Your task to perform on an android device: empty trash in the gmail app Image 0: 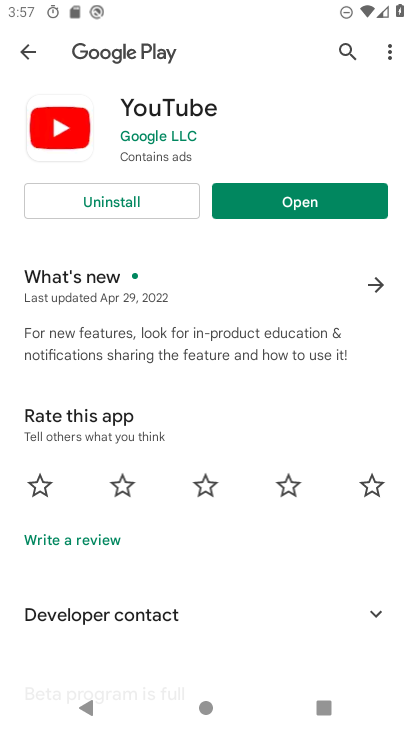
Step 0: press home button
Your task to perform on an android device: empty trash in the gmail app Image 1: 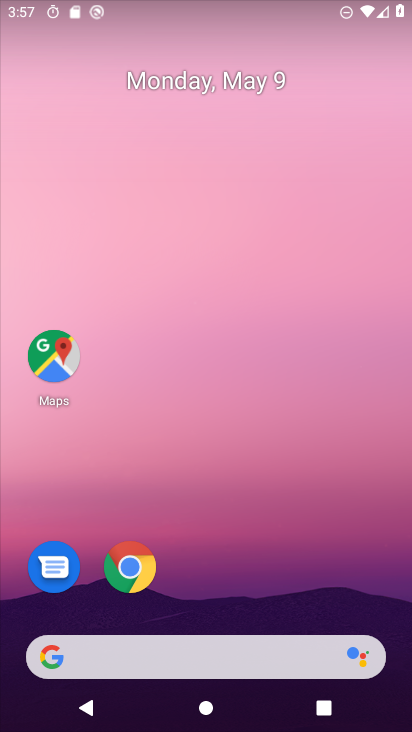
Step 1: drag from (280, 554) to (275, 132)
Your task to perform on an android device: empty trash in the gmail app Image 2: 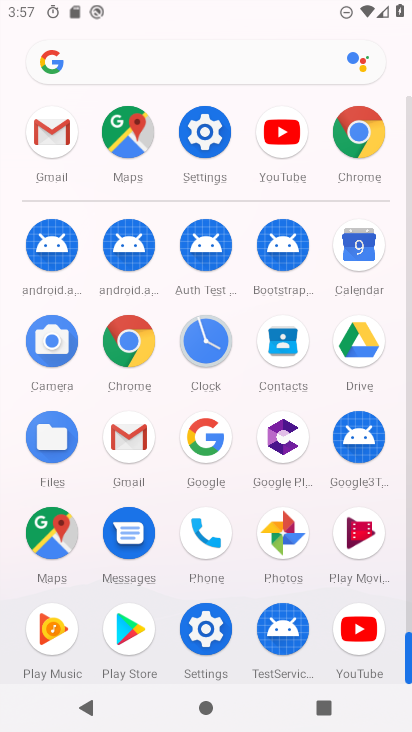
Step 2: click (52, 138)
Your task to perform on an android device: empty trash in the gmail app Image 3: 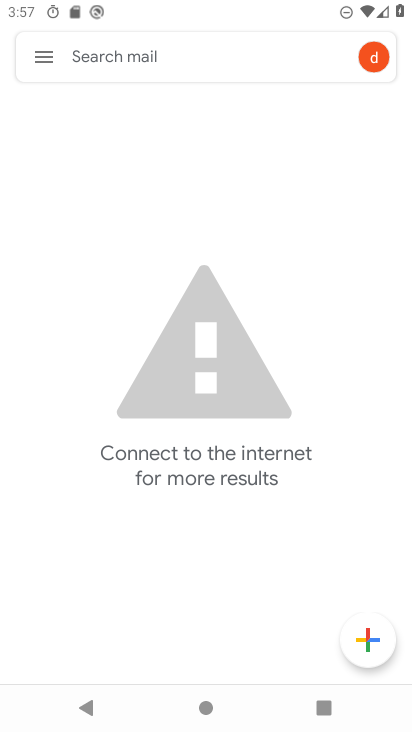
Step 3: click (45, 55)
Your task to perform on an android device: empty trash in the gmail app Image 4: 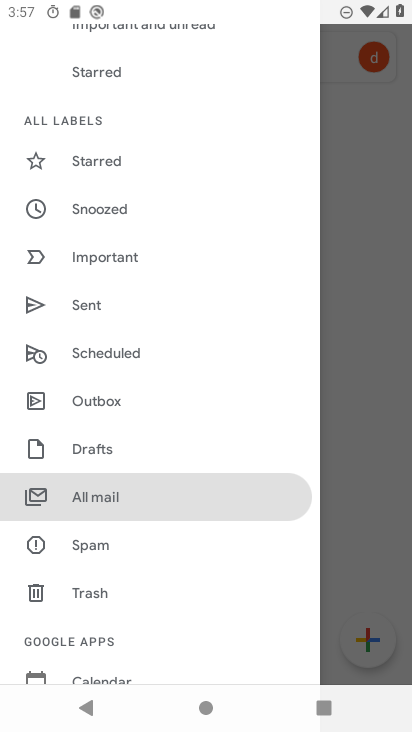
Step 4: click (104, 594)
Your task to perform on an android device: empty trash in the gmail app Image 5: 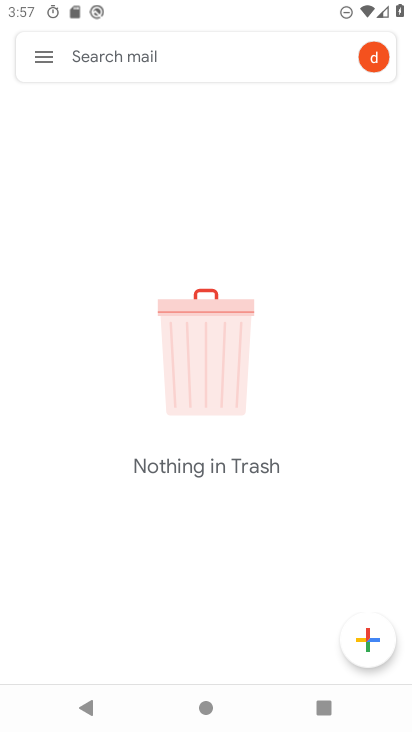
Step 5: task complete